Your task to perform on an android device: turn on location history Image 0: 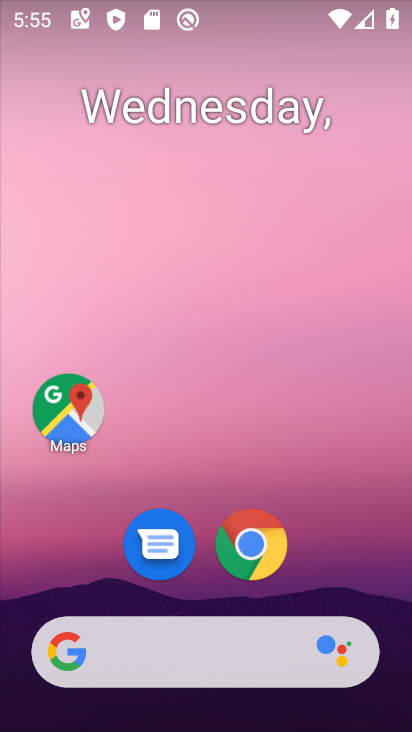
Step 0: drag from (334, 583) to (232, 13)
Your task to perform on an android device: turn on location history Image 1: 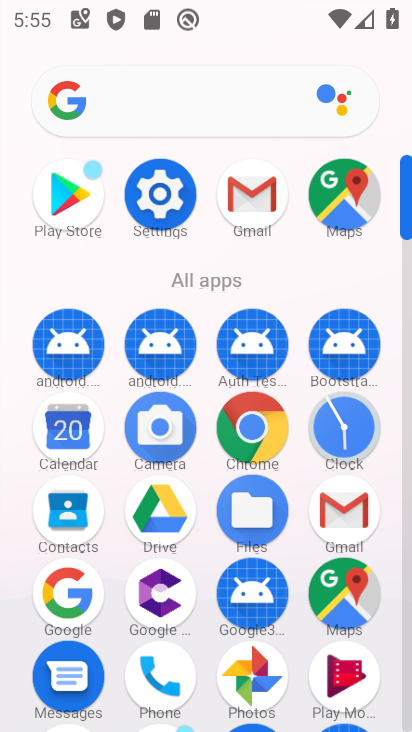
Step 1: click (166, 211)
Your task to perform on an android device: turn on location history Image 2: 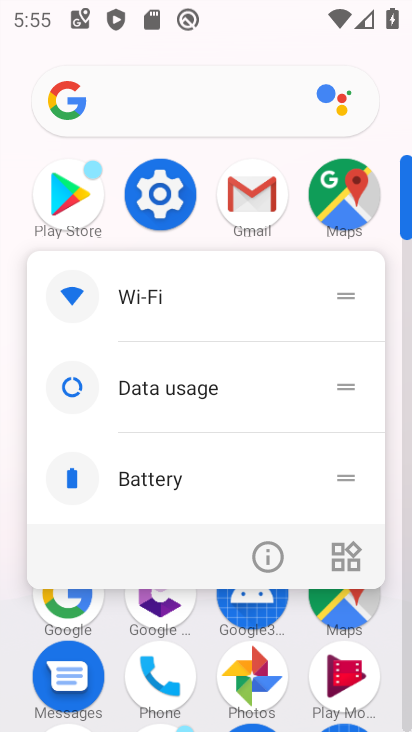
Step 2: click (172, 197)
Your task to perform on an android device: turn on location history Image 3: 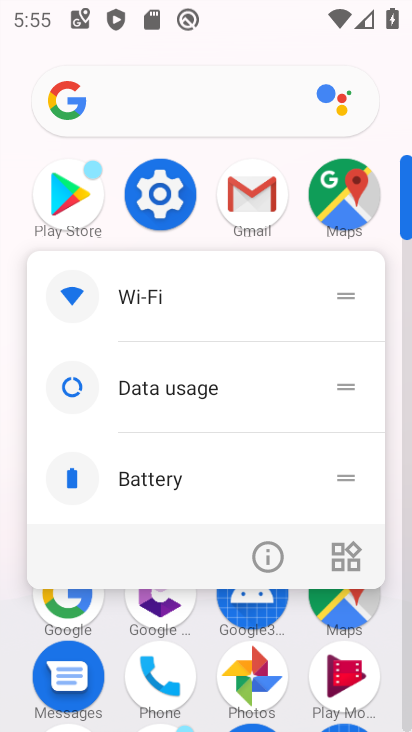
Step 3: click (162, 199)
Your task to perform on an android device: turn on location history Image 4: 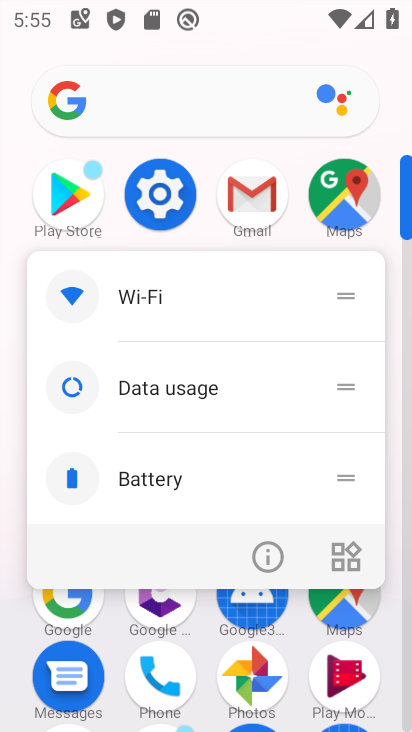
Step 4: click (147, 182)
Your task to perform on an android device: turn on location history Image 5: 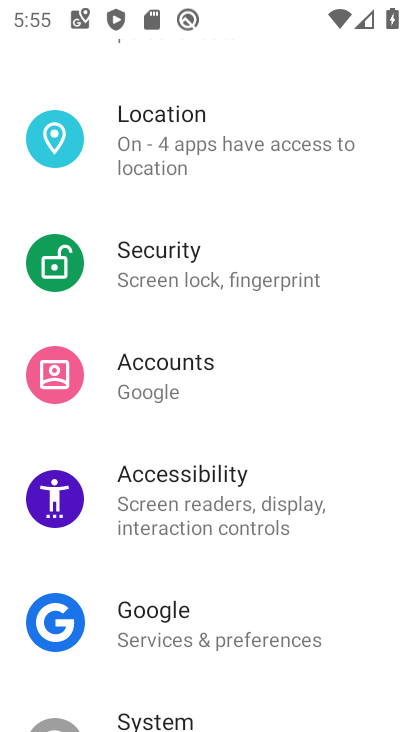
Step 5: click (203, 168)
Your task to perform on an android device: turn on location history Image 6: 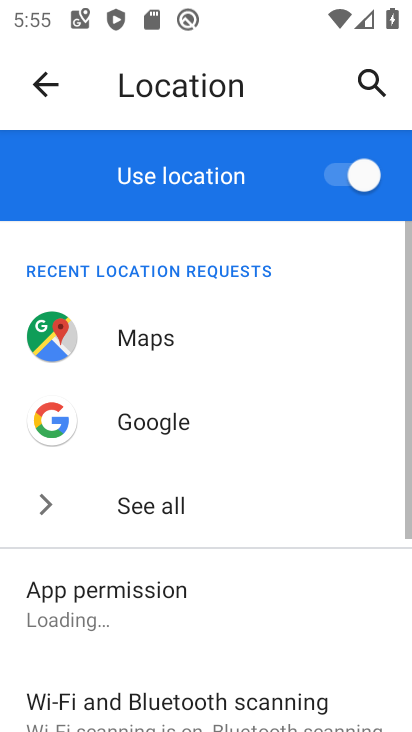
Step 6: drag from (262, 645) to (210, 62)
Your task to perform on an android device: turn on location history Image 7: 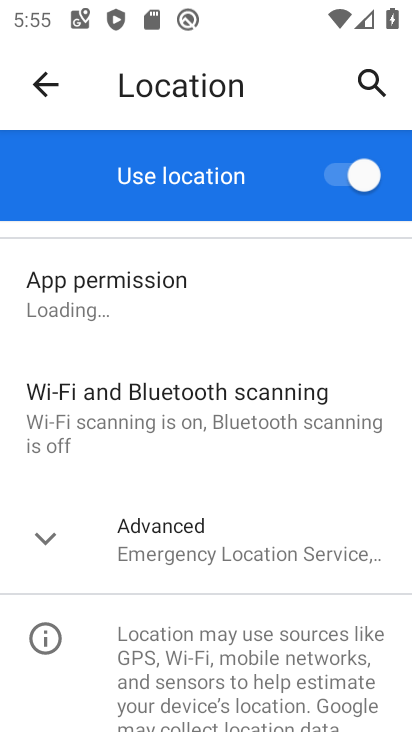
Step 7: click (231, 532)
Your task to perform on an android device: turn on location history Image 8: 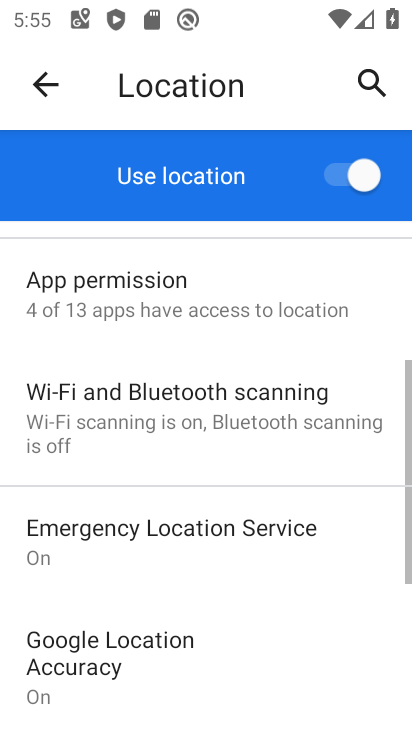
Step 8: drag from (237, 626) to (228, 86)
Your task to perform on an android device: turn on location history Image 9: 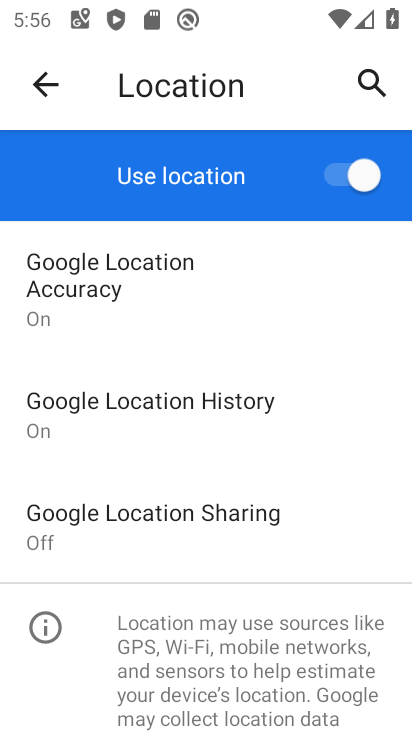
Step 9: click (282, 399)
Your task to perform on an android device: turn on location history Image 10: 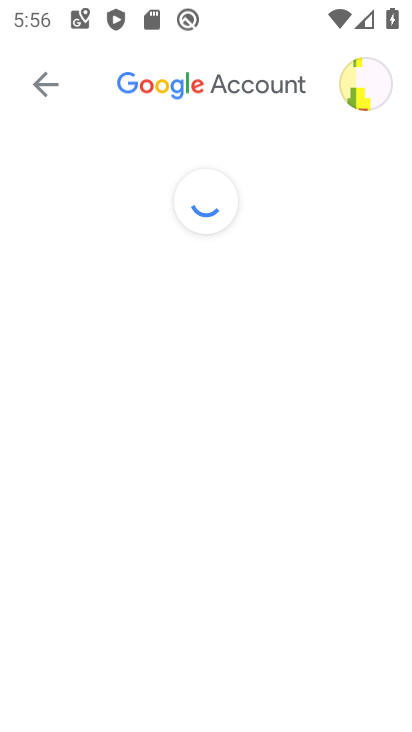
Step 10: task complete